Your task to perform on an android device: turn off picture-in-picture Image 0: 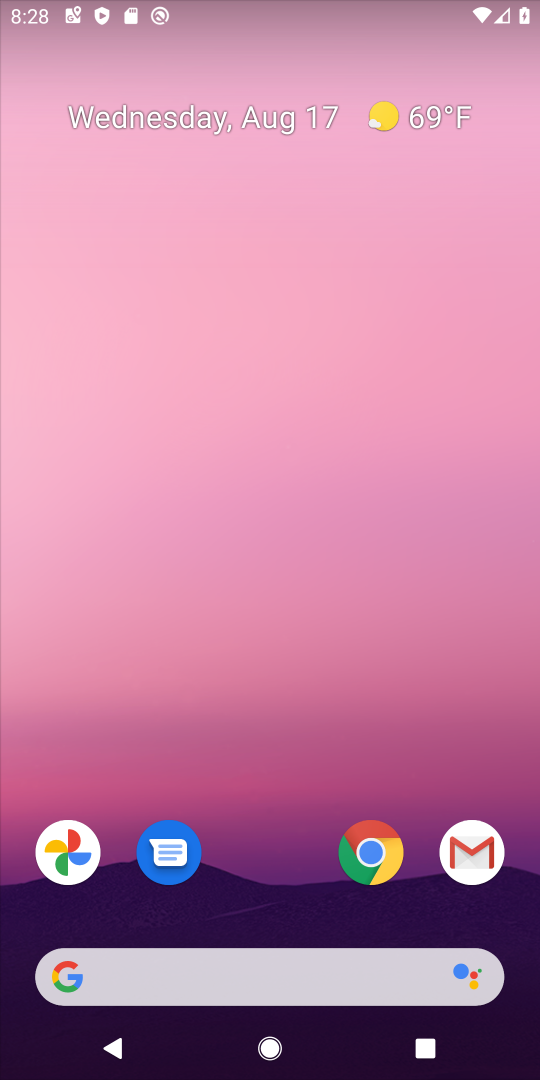
Step 0: drag from (279, 924) to (245, 441)
Your task to perform on an android device: turn off picture-in-picture Image 1: 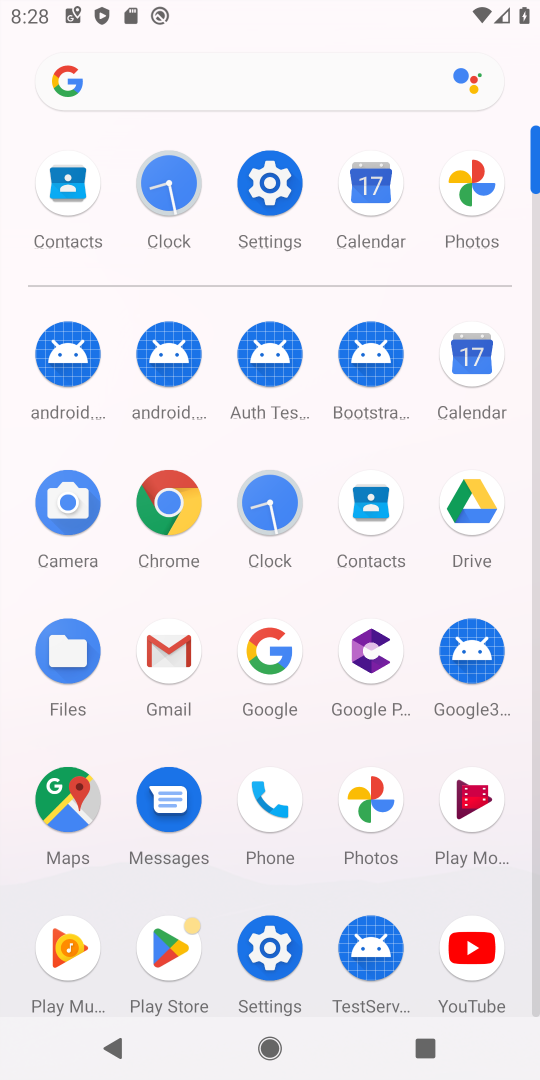
Step 1: click (279, 182)
Your task to perform on an android device: turn off picture-in-picture Image 2: 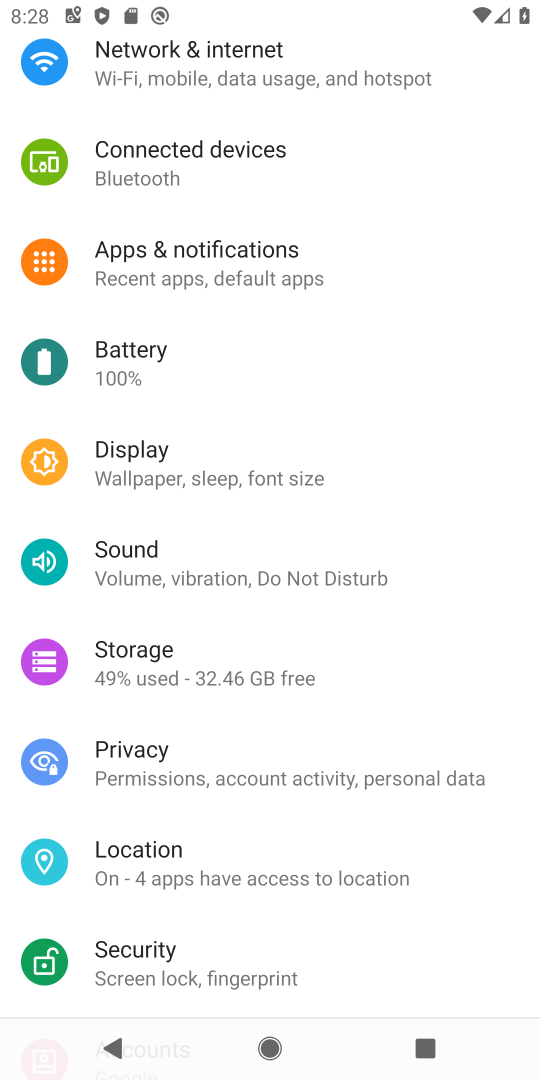
Step 2: click (177, 245)
Your task to perform on an android device: turn off picture-in-picture Image 3: 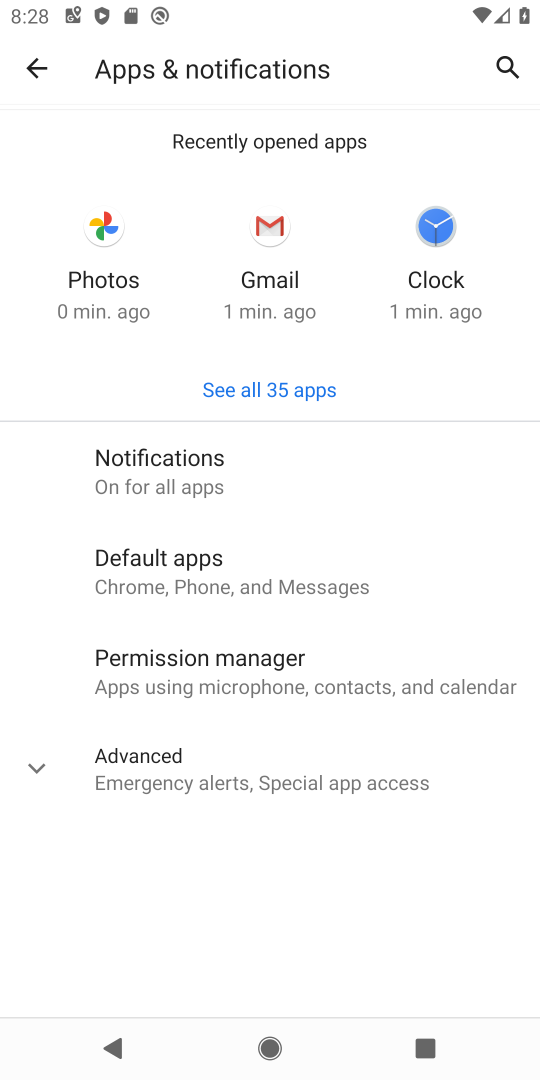
Step 3: click (62, 764)
Your task to perform on an android device: turn off picture-in-picture Image 4: 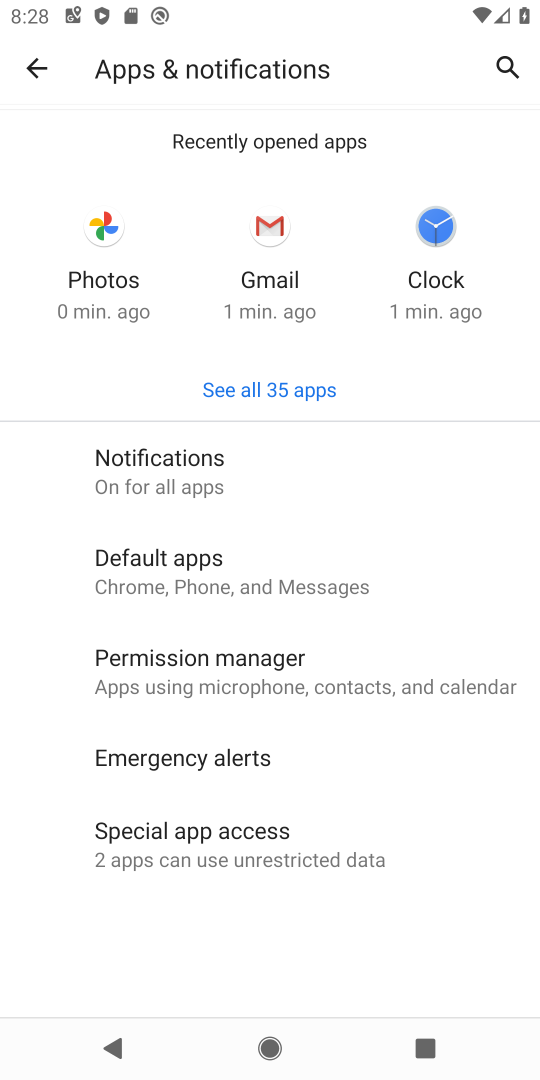
Step 4: click (139, 833)
Your task to perform on an android device: turn off picture-in-picture Image 5: 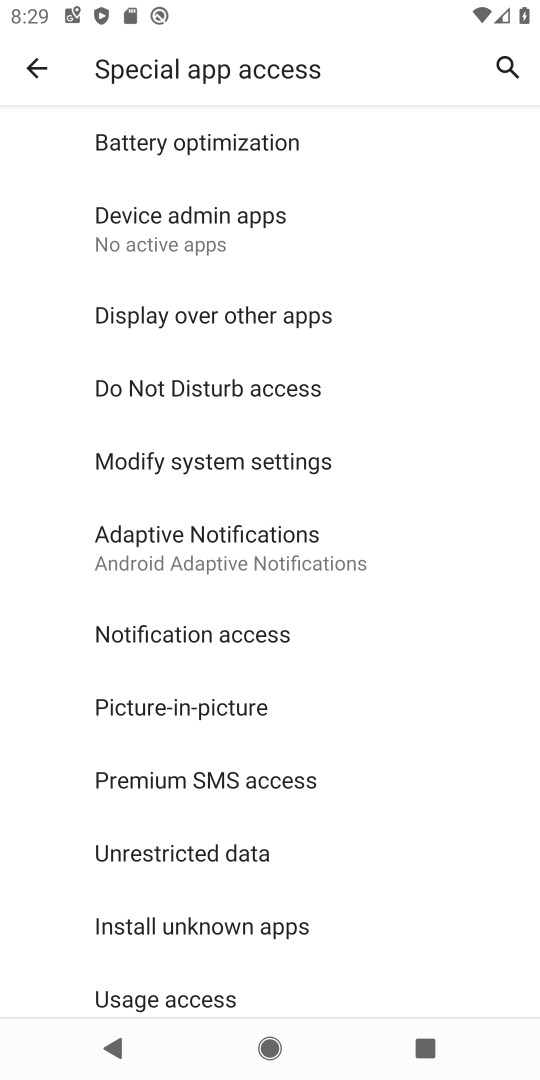
Step 5: click (166, 711)
Your task to perform on an android device: turn off picture-in-picture Image 6: 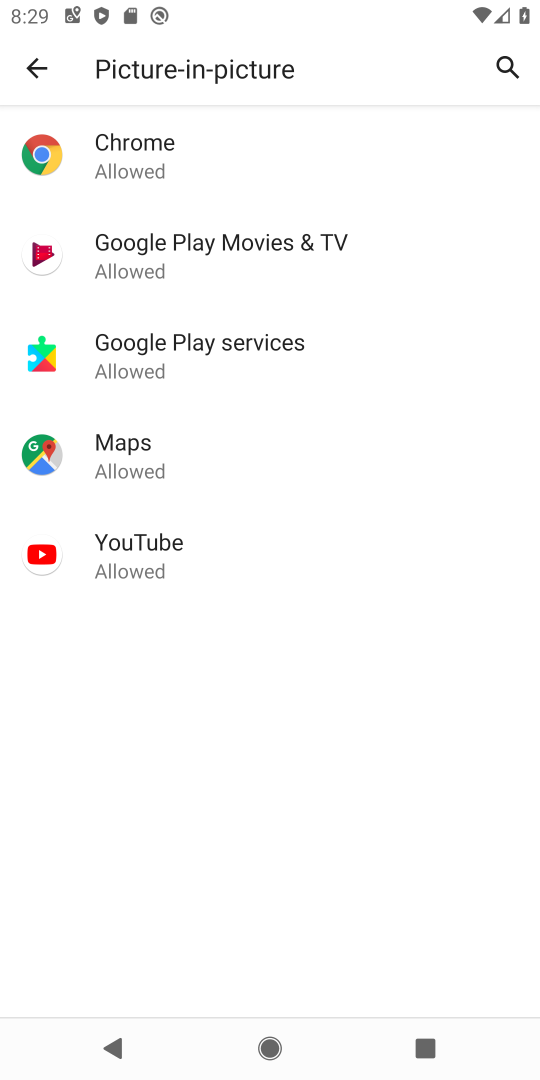
Step 6: click (135, 150)
Your task to perform on an android device: turn off picture-in-picture Image 7: 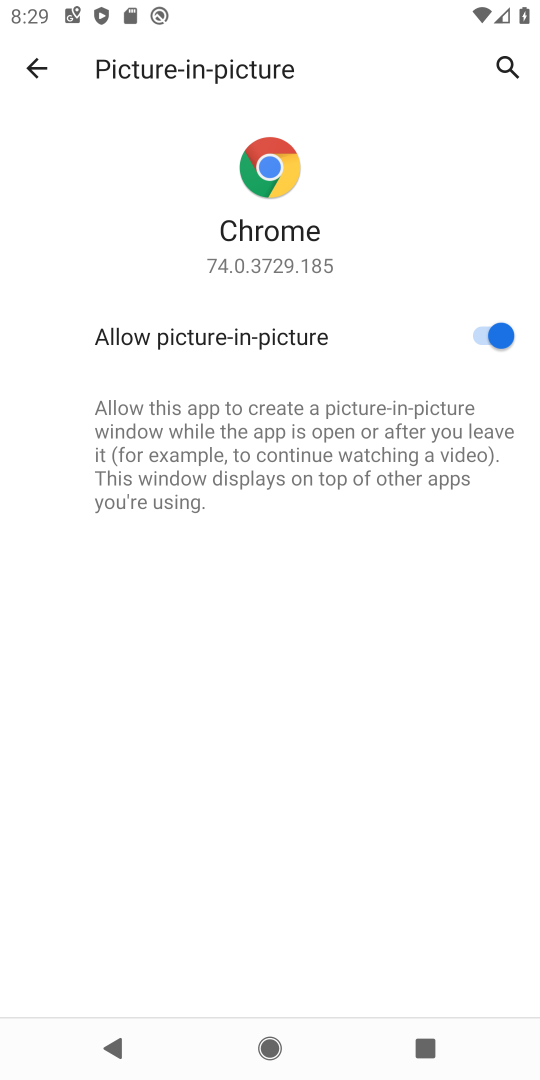
Step 7: click (510, 345)
Your task to perform on an android device: turn off picture-in-picture Image 8: 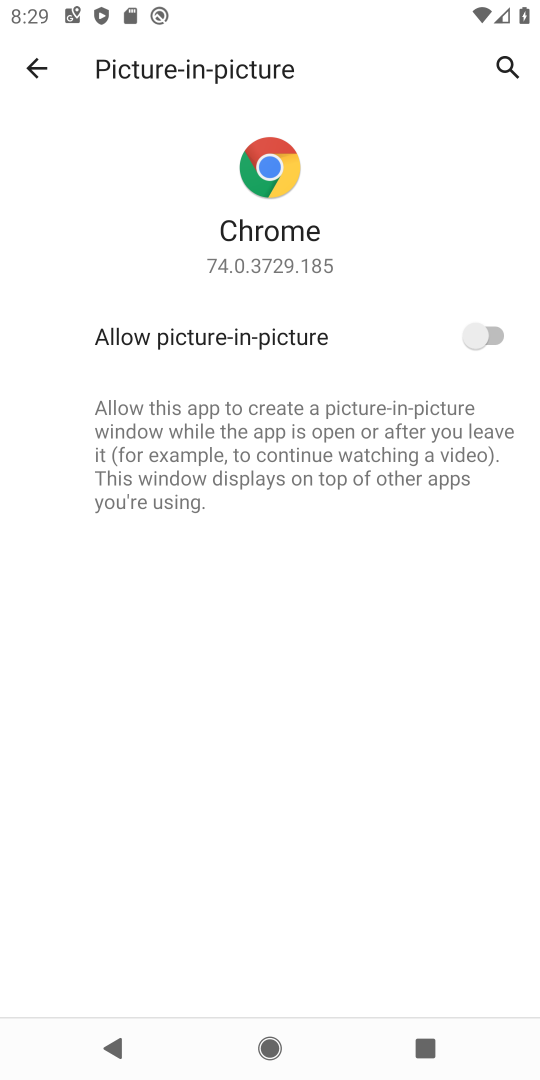
Step 8: click (36, 79)
Your task to perform on an android device: turn off picture-in-picture Image 9: 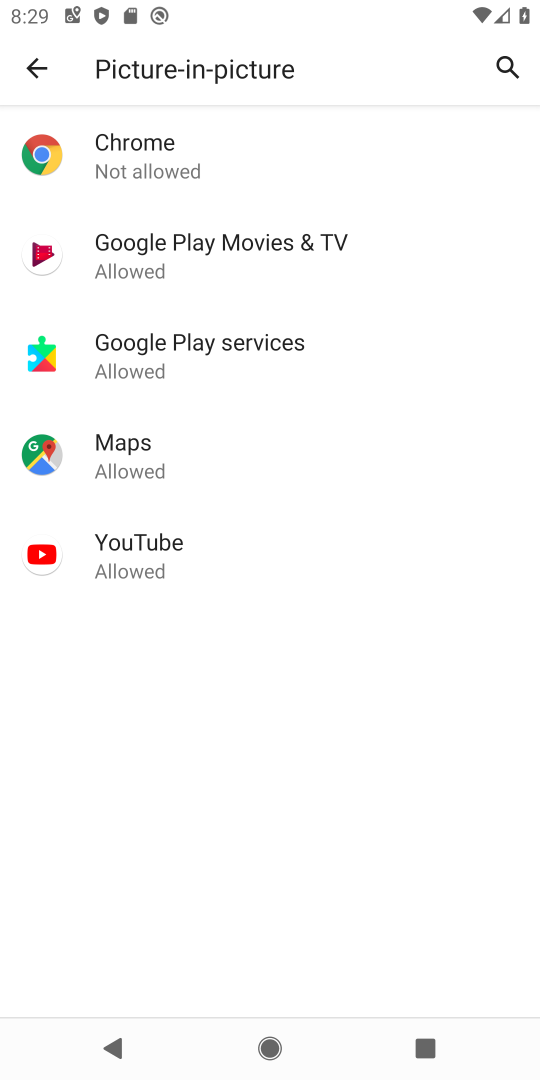
Step 9: click (157, 245)
Your task to perform on an android device: turn off picture-in-picture Image 10: 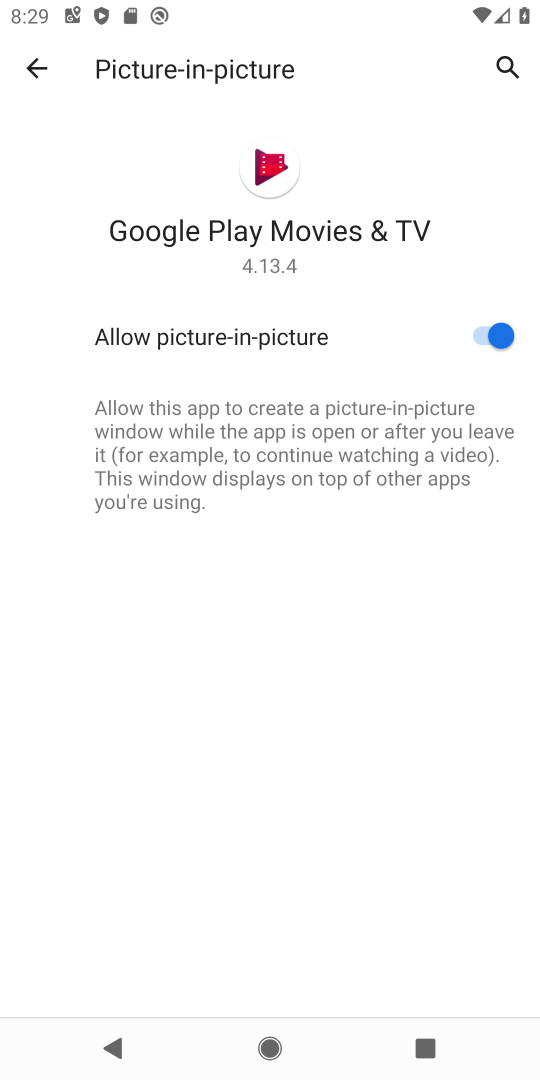
Step 10: click (486, 348)
Your task to perform on an android device: turn off picture-in-picture Image 11: 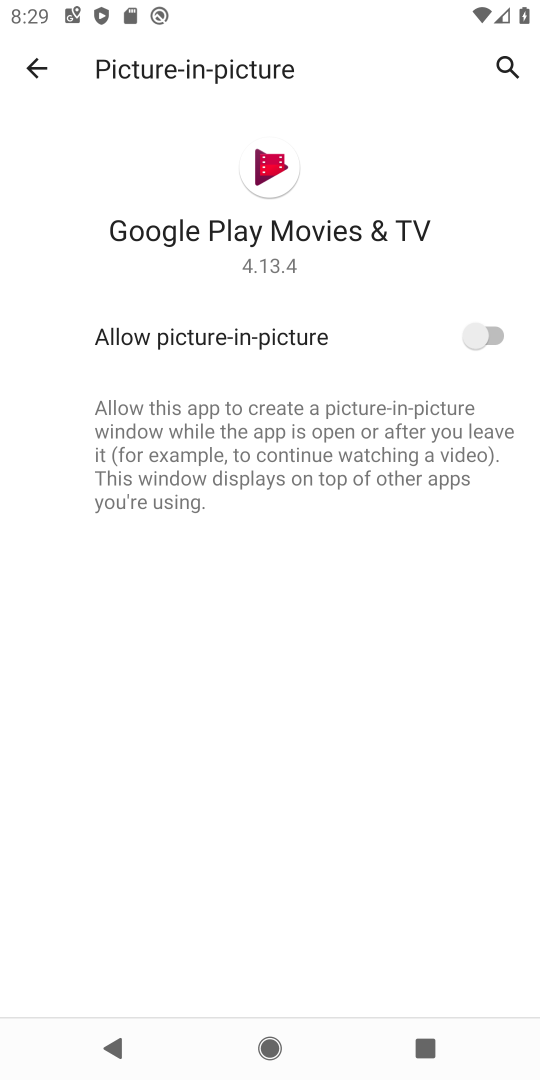
Step 11: click (40, 78)
Your task to perform on an android device: turn off picture-in-picture Image 12: 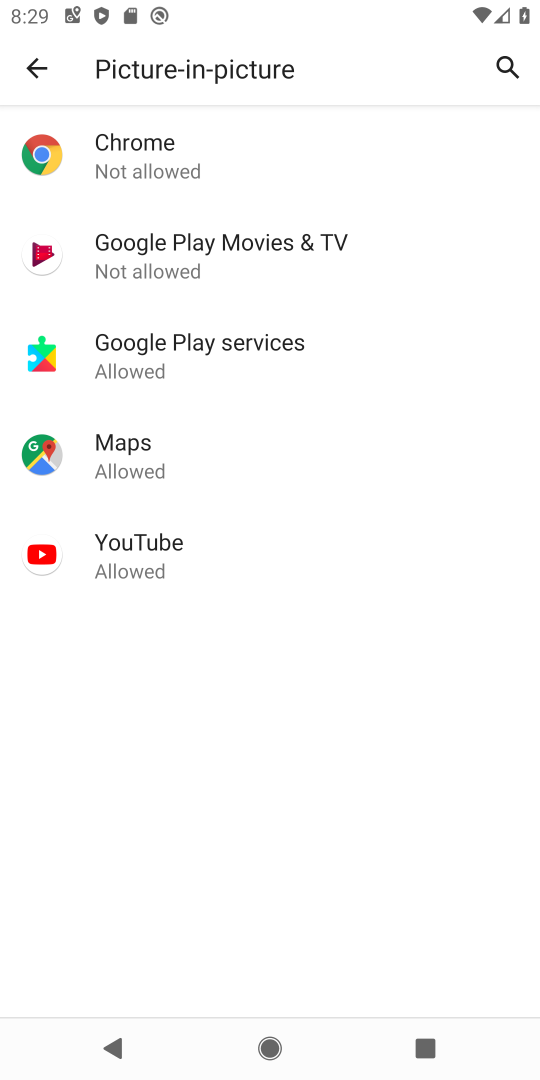
Step 12: click (138, 351)
Your task to perform on an android device: turn off picture-in-picture Image 13: 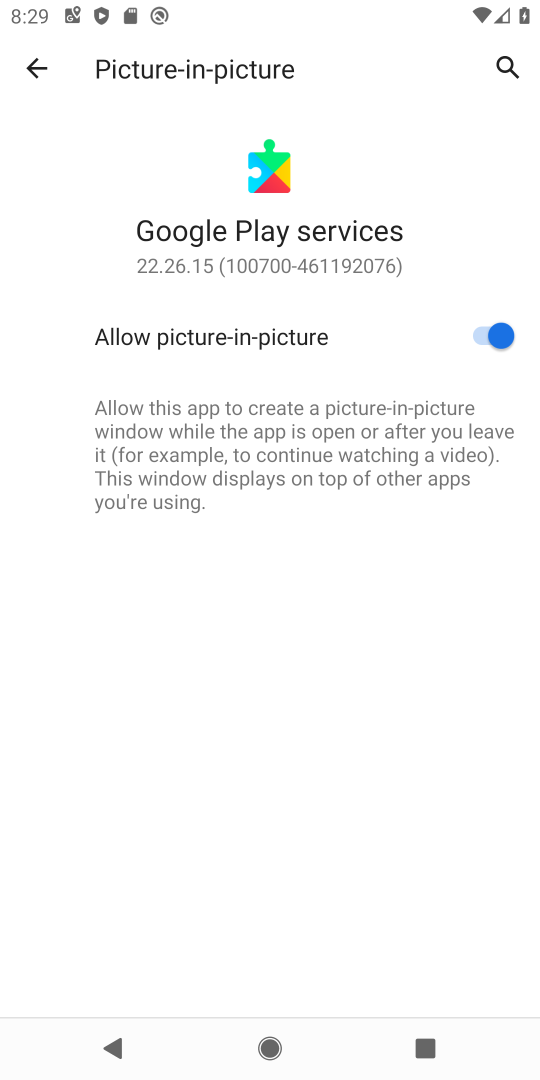
Step 13: click (496, 340)
Your task to perform on an android device: turn off picture-in-picture Image 14: 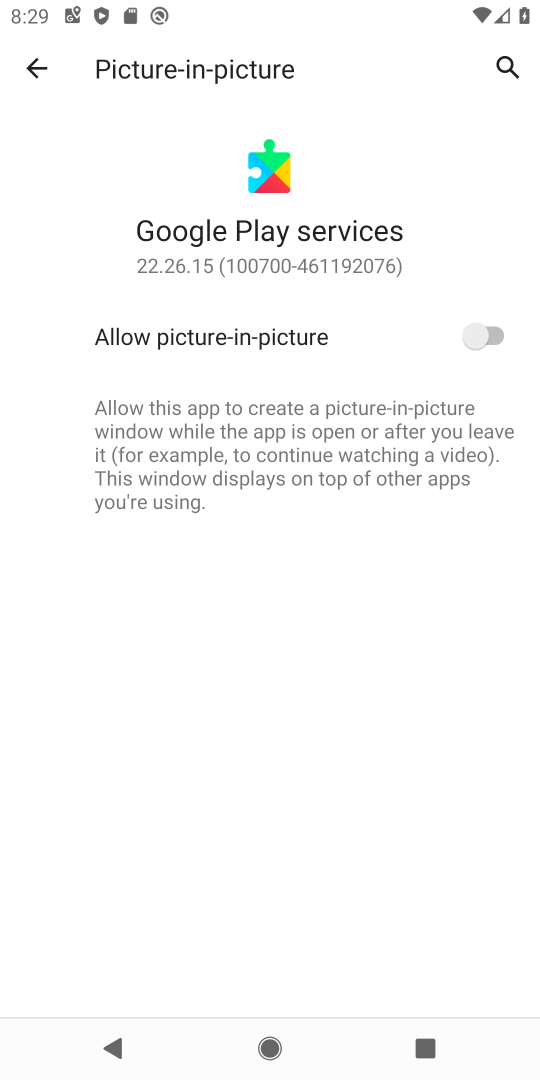
Step 14: click (40, 62)
Your task to perform on an android device: turn off picture-in-picture Image 15: 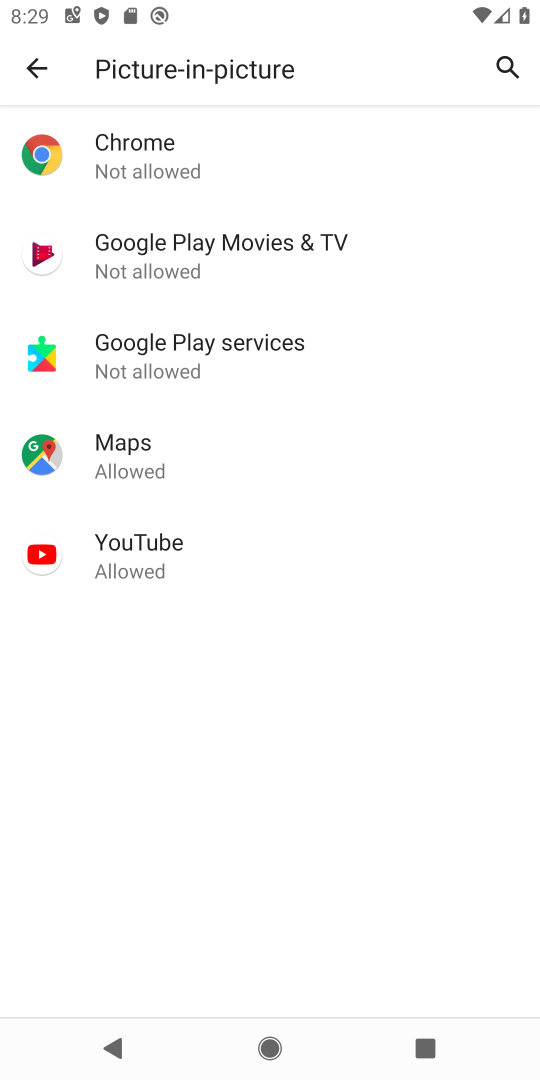
Step 15: click (122, 458)
Your task to perform on an android device: turn off picture-in-picture Image 16: 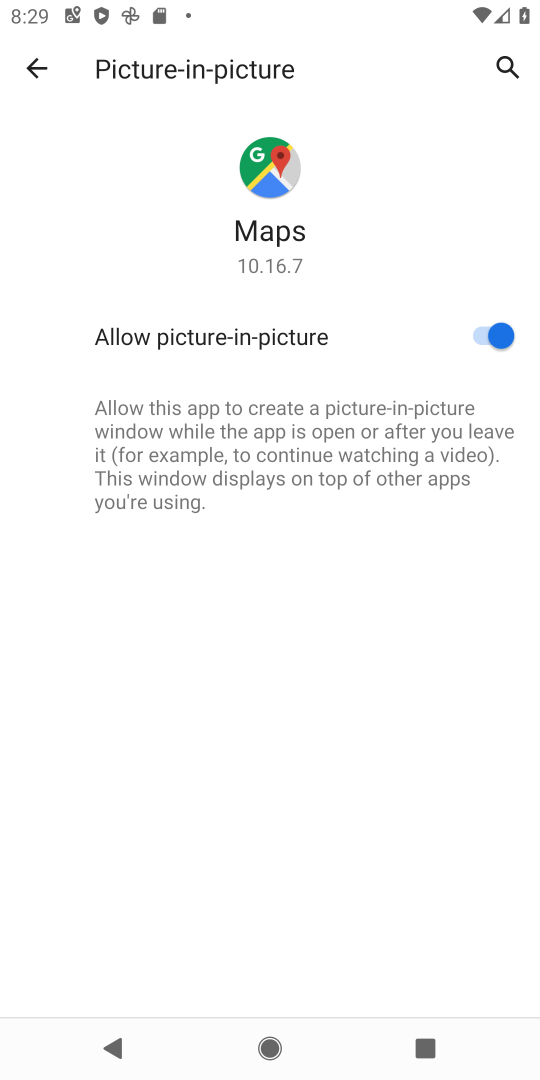
Step 16: click (486, 336)
Your task to perform on an android device: turn off picture-in-picture Image 17: 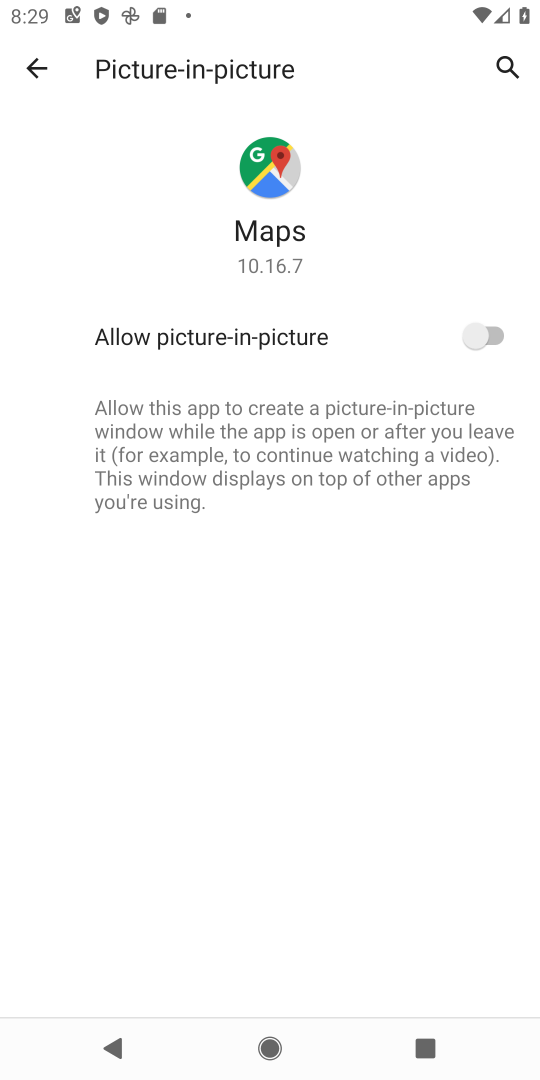
Step 17: click (24, 54)
Your task to perform on an android device: turn off picture-in-picture Image 18: 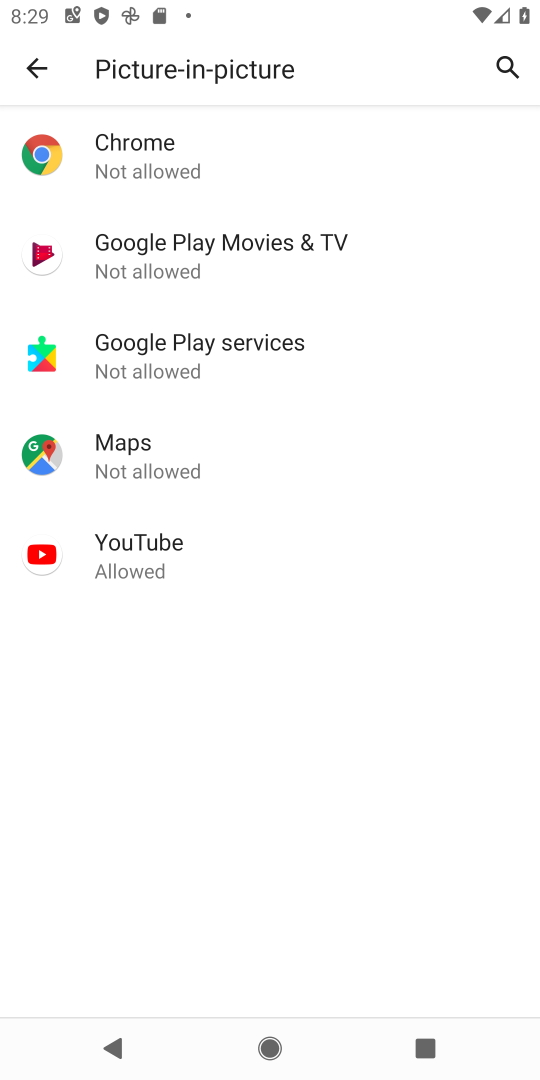
Step 18: click (150, 549)
Your task to perform on an android device: turn off picture-in-picture Image 19: 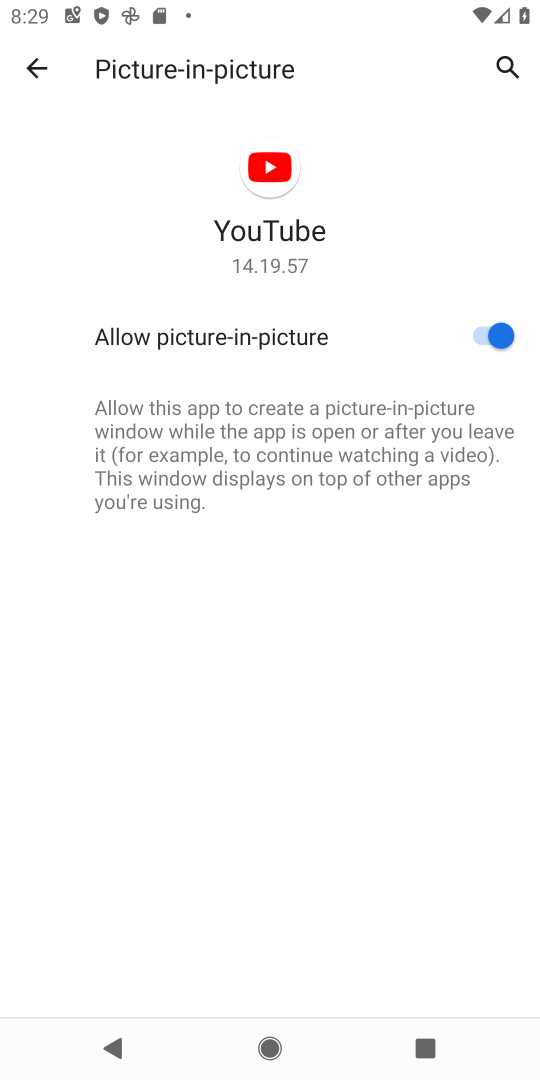
Step 19: click (511, 330)
Your task to perform on an android device: turn off picture-in-picture Image 20: 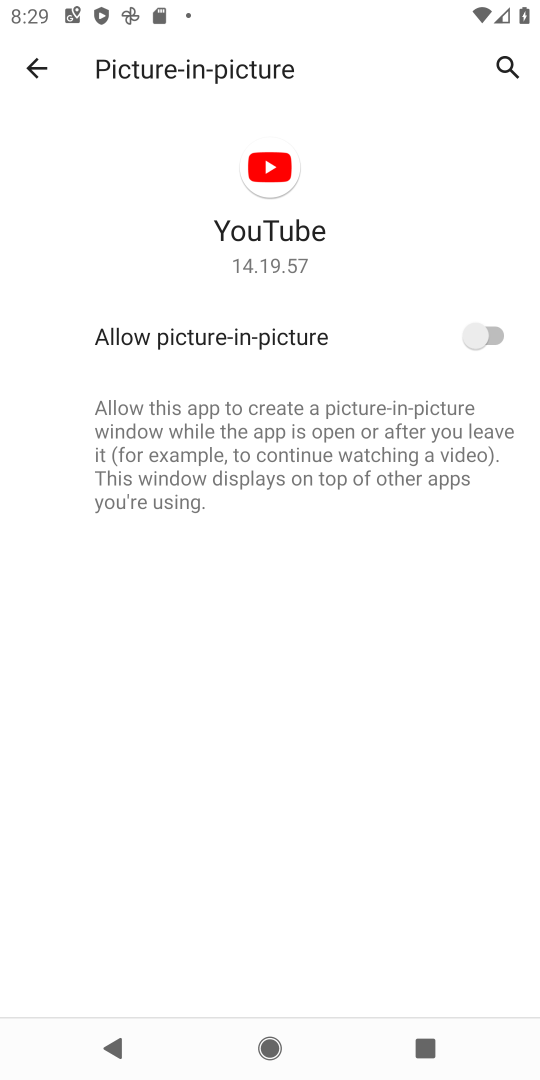
Step 20: click (39, 66)
Your task to perform on an android device: turn off picture-in-picture Image 21: 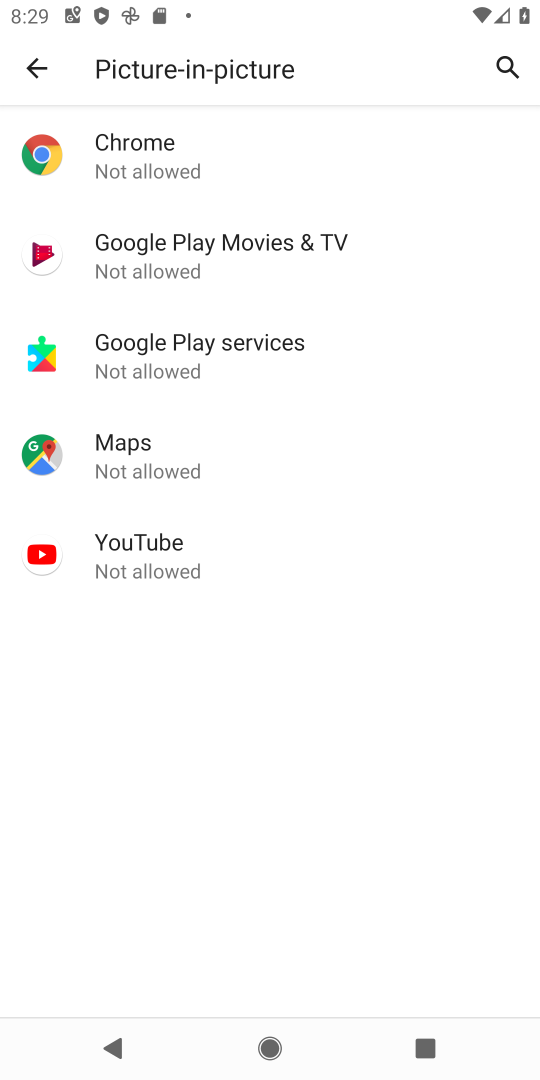
Step 21: task complete